Your task to perform on an android device: change the clock style Image 0: 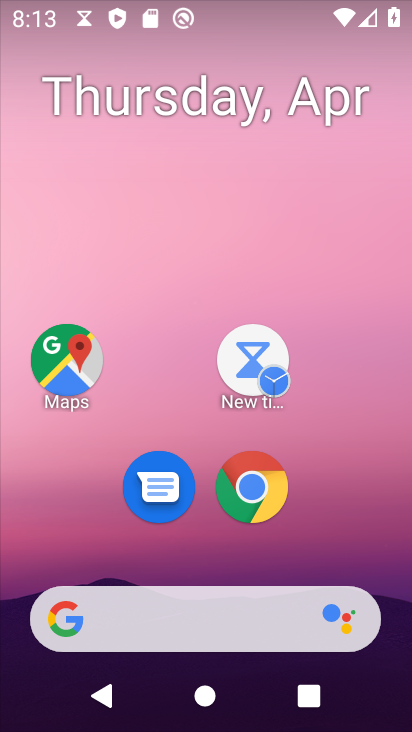
Step 0: click (68, 364)
Your task to perform on an android device: change the clock style Image 1: 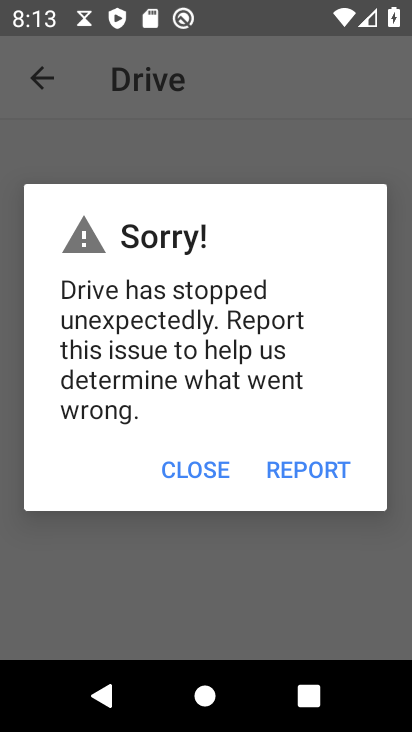
Step 1: press home button
Your task to perform on an android device: change the clock style Image 2: 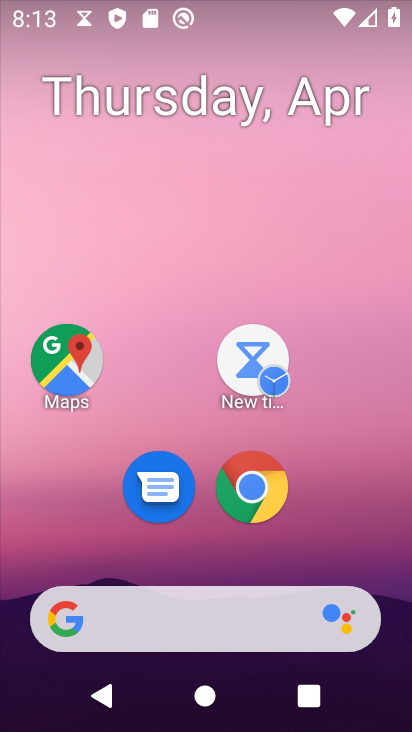
Step 2: drag from (318, 475) to (331, 142)
Your task to perform on an android device: change the clock style Image 3: 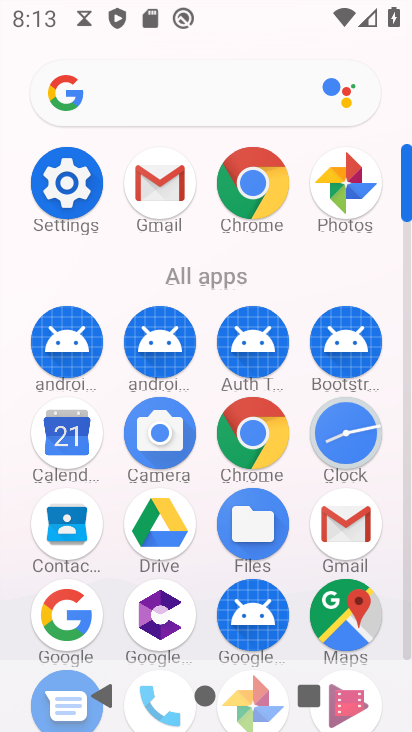
Step 3: click (345, 445)
Your task to perform on an android device: change the clock style Image 4: 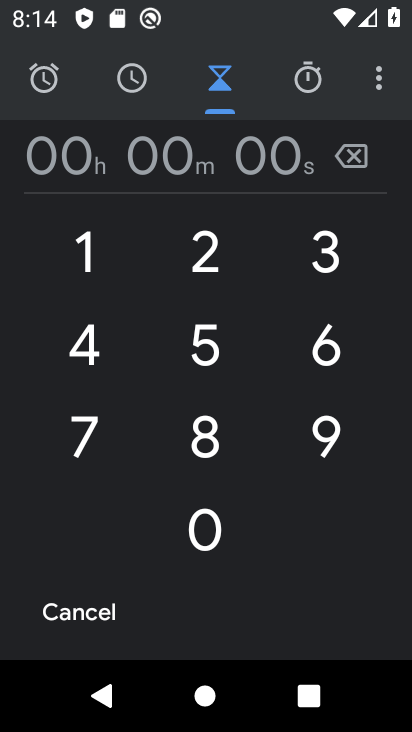
Step 4: click (383, 80)
Your task to perform on an android device: change the clock style Image 5: 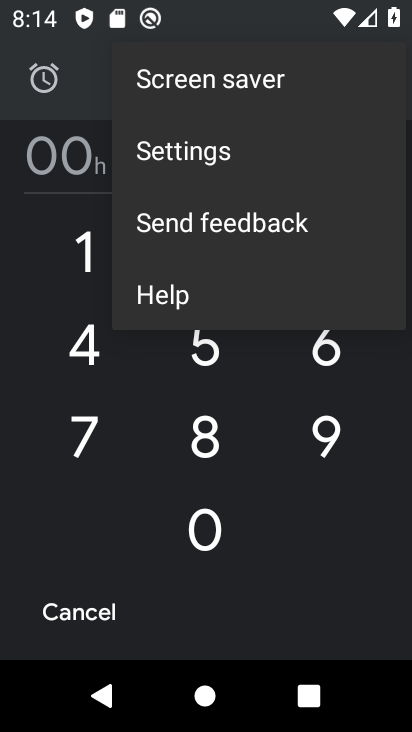
Step 5: click (234, 161)
Your task to perform on an android device: change the clock style Image 6: 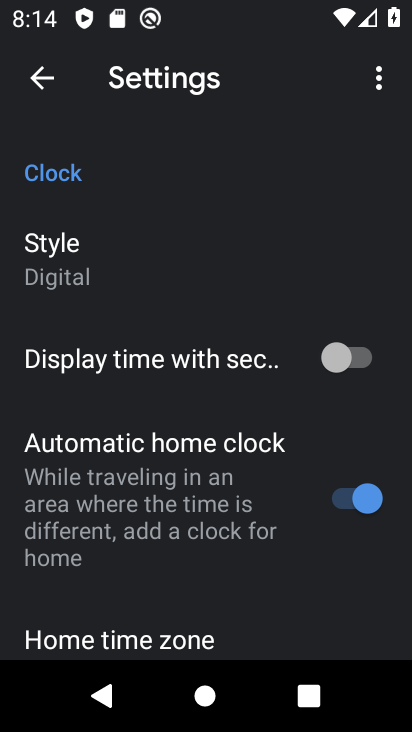
Step 6: click (59, 271)
Your task to perform on an android device: change the clock style Image 7: 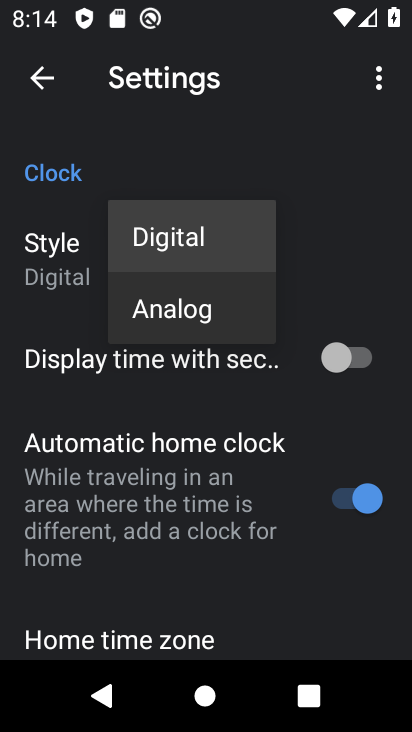
Step 7: click (178, 314)
Your task to perform on an android device: change the clock style Image 8: 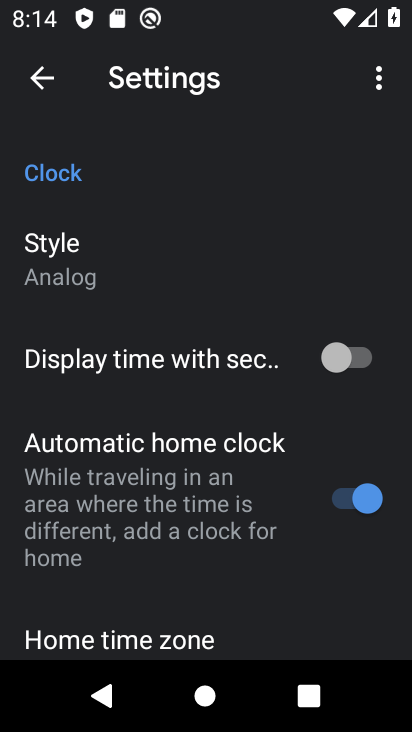
Step 8: task complete